Your task to perform on an android device: make emails show in primary in the gmail app Image 0: 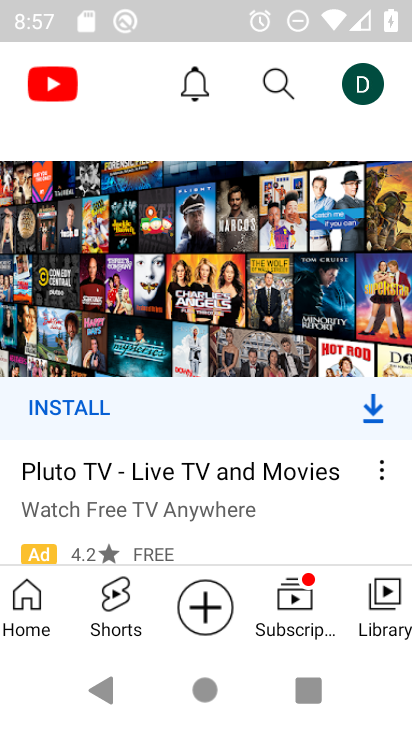
Step 0: press home button
Your task to perform on an android device: make emails show in primary in the gmail app Image 1: 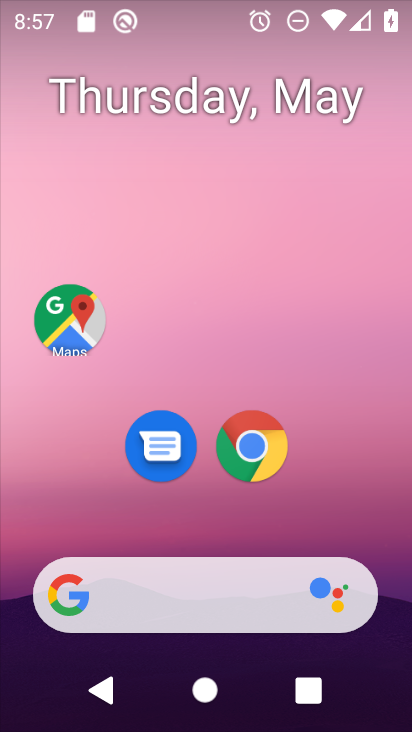
Step 1: drag from (374, 509) to (361, 85)
Your task to perform on an android device: make emails show in primary in the gmail app Image 2: 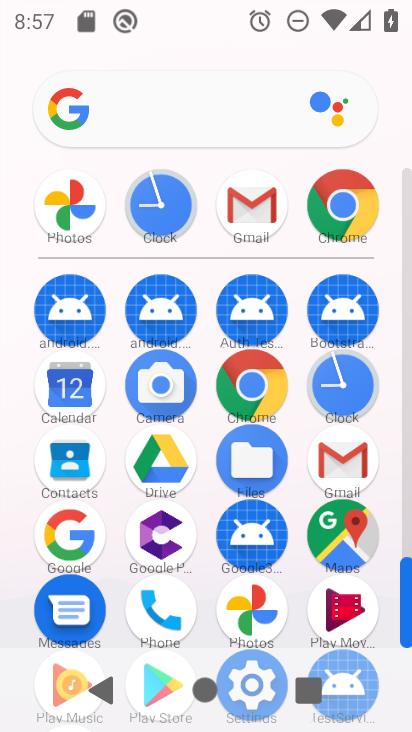
Step 2: click (339, 454)
Your task to perform on an android device: make emails show in primary in the gmail app Image 3: 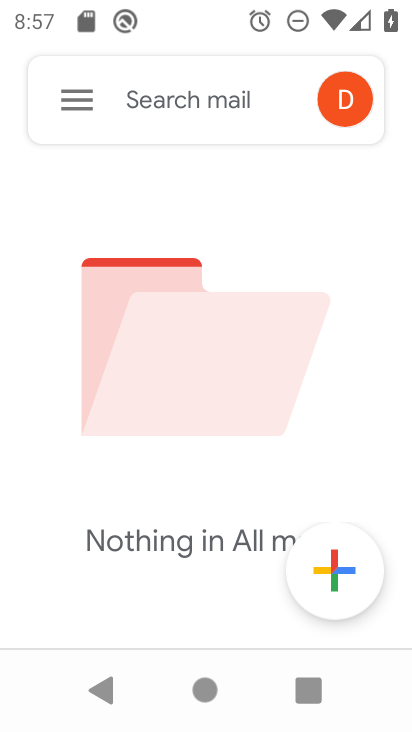
Step 3: click (78, 96)
Your task to perform on an android device: make emails show in primary in the gmail app Image 4: 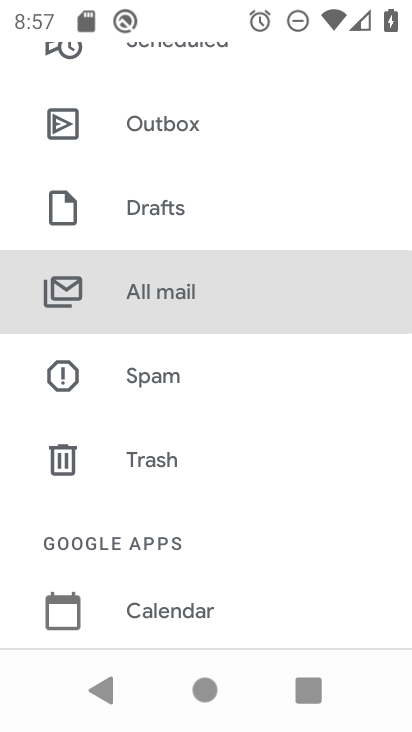
Step 4: drag from (250, 96) to (228, 490)
Your task to perform on an android device: make emails show in primary in the gmail app Image 5: 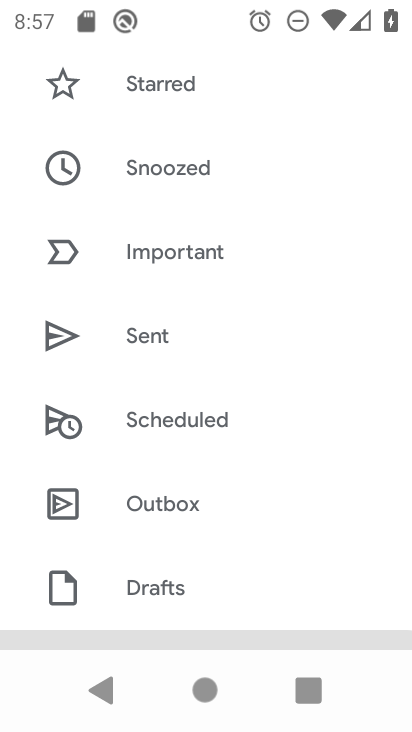
Step 5: drag from (285, 199) to (288, 573)
Your task to perform on an android device: make emails show in primary in the gmail app Image 6: 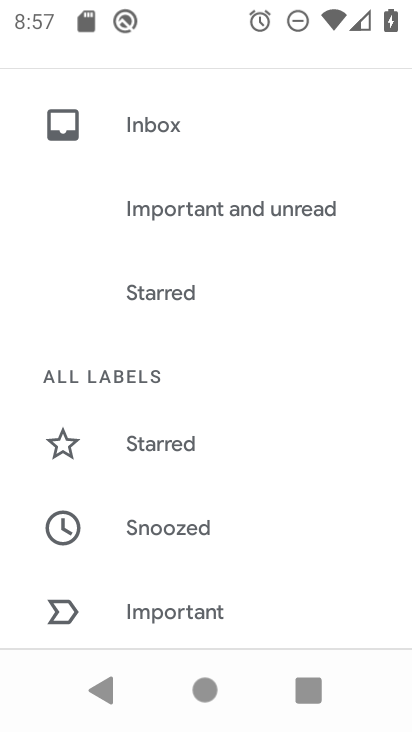
Step 6: drag from (284, 171) to (291, 453)
Your task to perform on an android device: make emails show in primary in the gmail app Image 7: 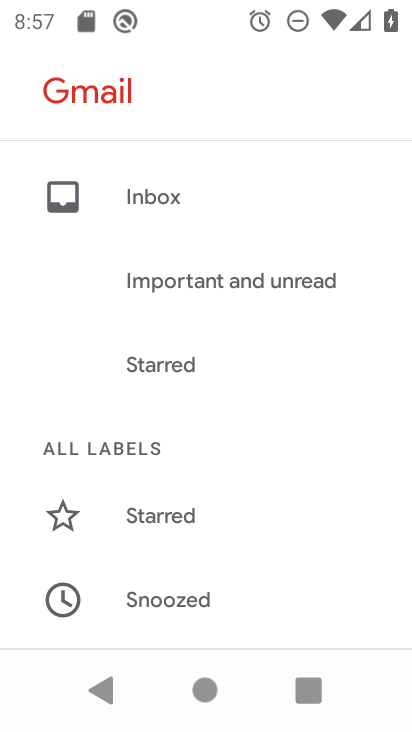
Step 7: drag from (304, 589) to (314, 150)
Your task to perform on an android device: make emails show in primary in the gmail app Image 8: 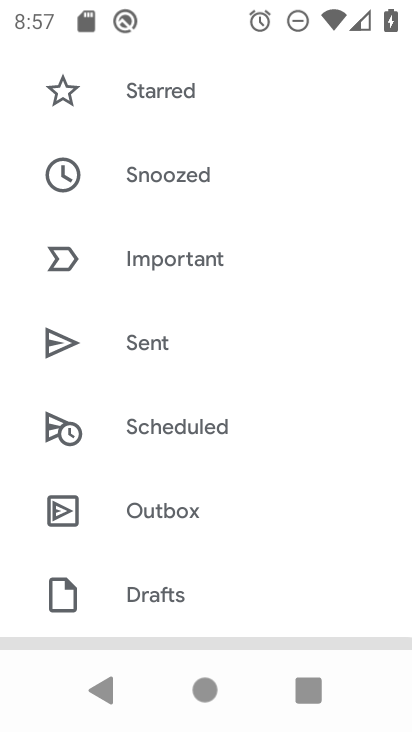
Step 8: drag from (298, 573) to (294, 169)
Your task to perform on an android device: make emails show in primary in the gmail app Image 9: 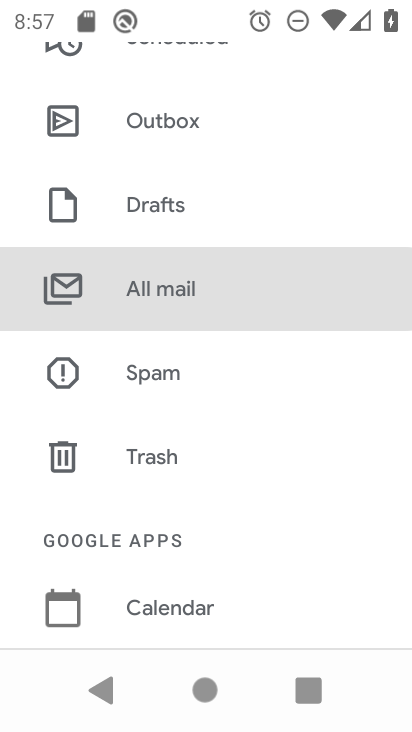
Step 9: drag from (280, 581) to (290, 143)
Your task to perform on an android device: make emails show in primary in the gmail app Image 10: 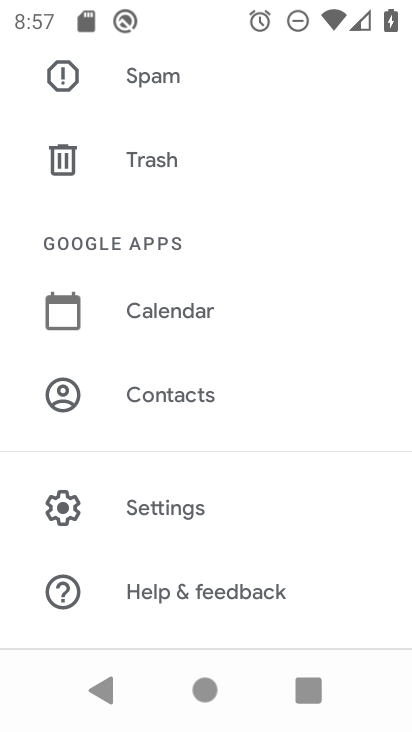
Step 10: click (192, 519)
Your task to perform on an android device: make emails show in primary in the gmail app Image 11: 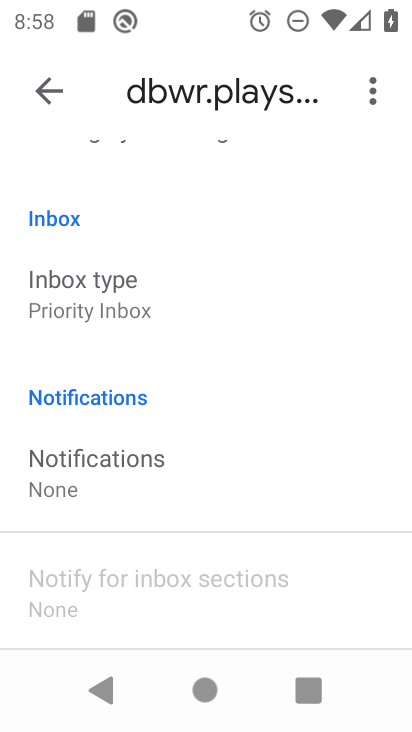
Step 11: click (154, 299)
Your task to perform on an android device: make emails show in primary in the gmail app Image 12: 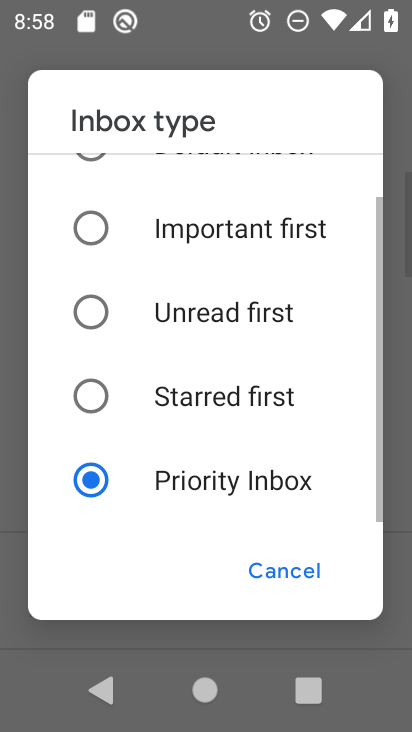
Step 12: drag from (130, 205) to (109, 456)
Your task to perform on an android device: make emails show in primary in the gmail app Image 13: 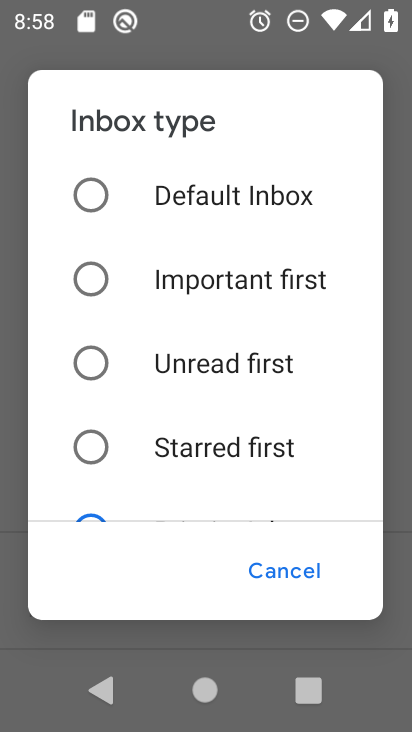
Step 13: click (84, 187)
Your task to perform on an android device: make emails show in primary in the gmail app Image 14: 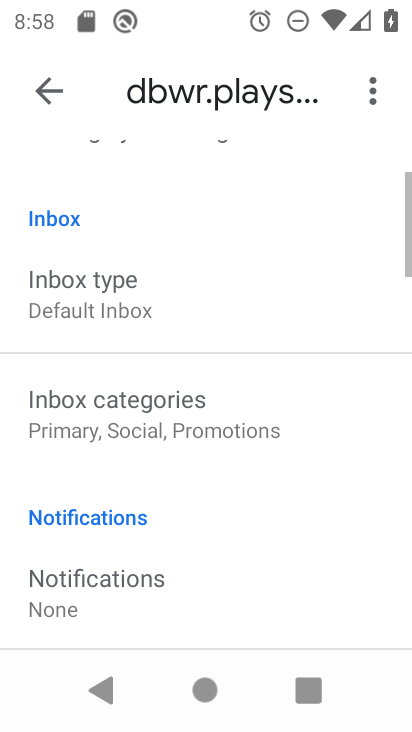
Step 14: click (55, 86)
Your task to perform on an android device: make emails show in primary in the gmail app Image 15: 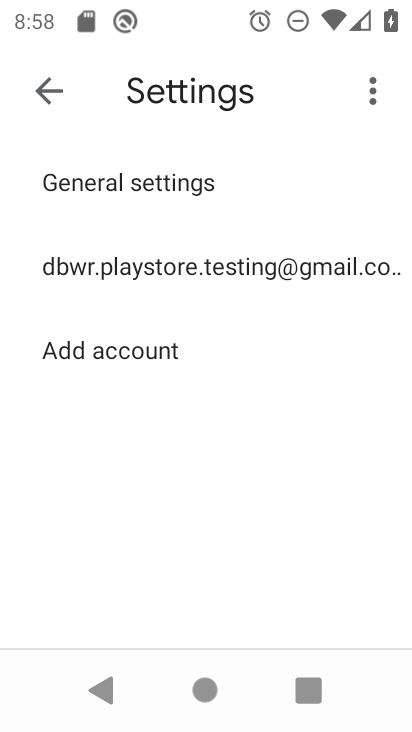
Step 15: click (55, 86)
Your task to perform on an android device: make emails show in primary in the gmail app Image 16: 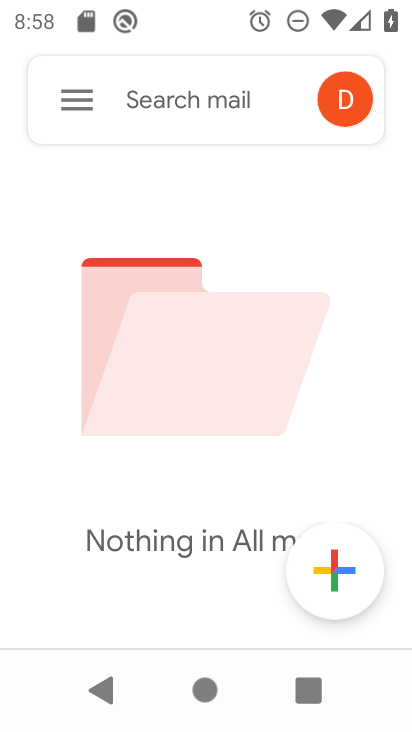
Step 16: click (60, 91)
Your task to perform on an android device: make emails show in primary in the gmail app Image 17: 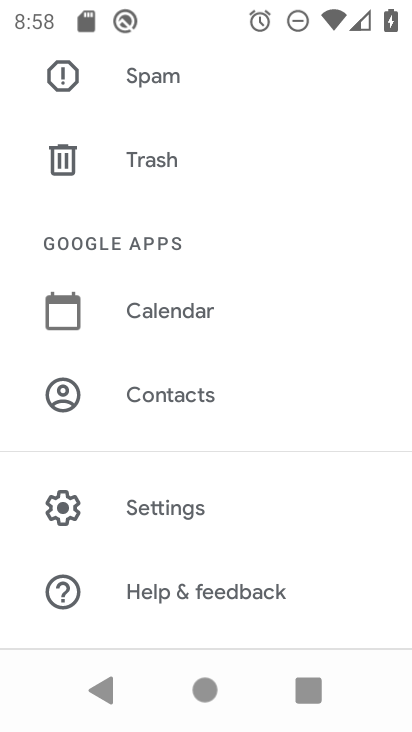
Step 17: drag from (230, 124) to (231, 537)
Your task to perform on an android device: make emails show in primary in the gmail app Image 18: 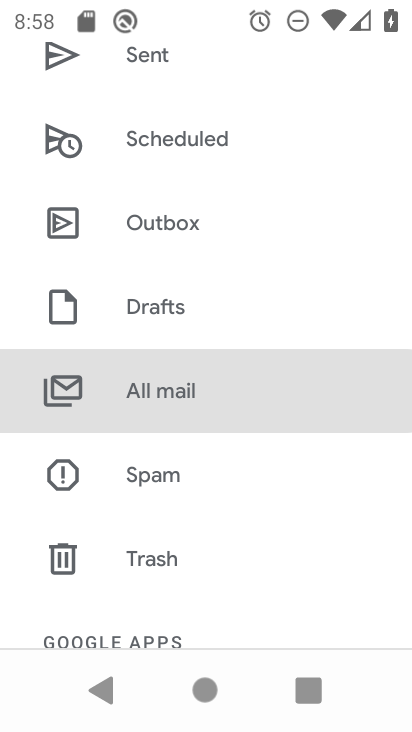
Step 18: drag from (273, 168) to (304, 583)
Your task to perform on an android device: make emails show in primary in the gmail app Image 19: 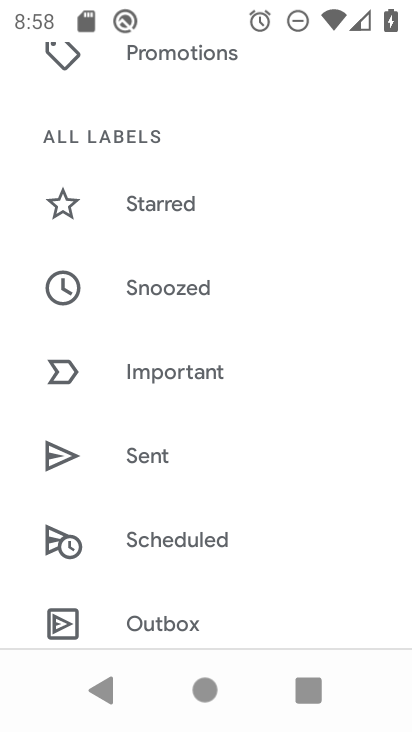
Step 19: drag from (290, 221) to (333, 603)
Your task to perform on an android device: make emails show in primary in the gmail app Image 20: 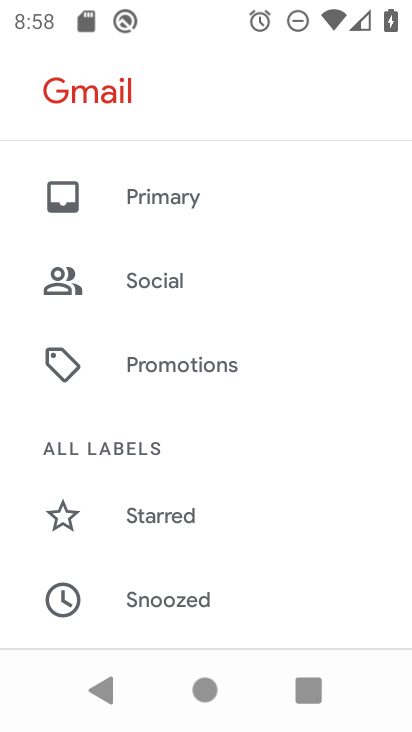
Step 20: click (213, 196)
Your task to perform on an android device: make emails show in primary in the gmail app Image 21: 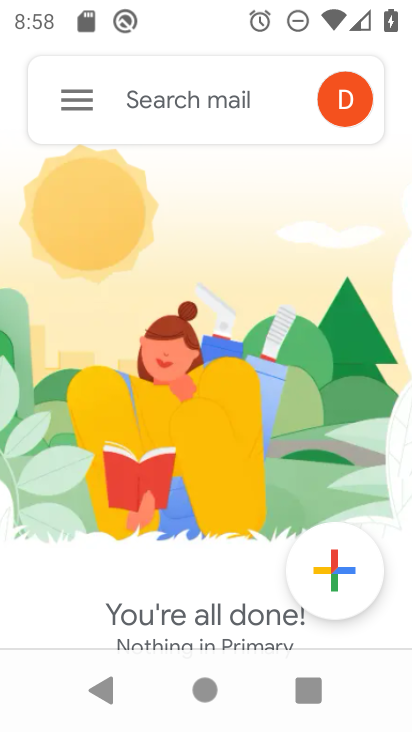
Step 21: task complete